Your task to perform on an android device: Search for vegetarian restaurants on Maps Image 0: 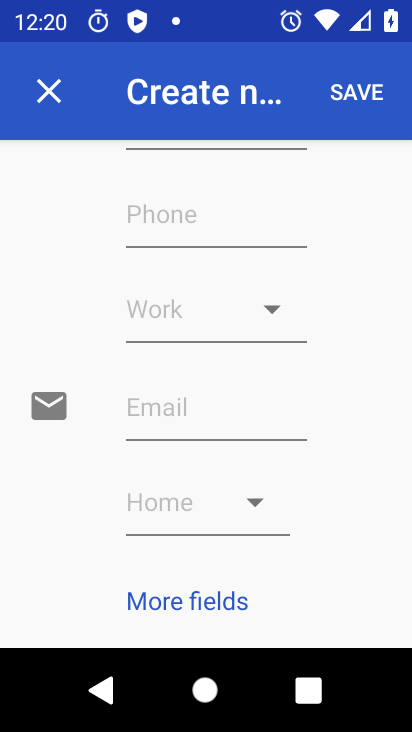
Step 0: press home button
Your task to perform on an android device: Search for vegetarian restaurants on Maps Image 1: 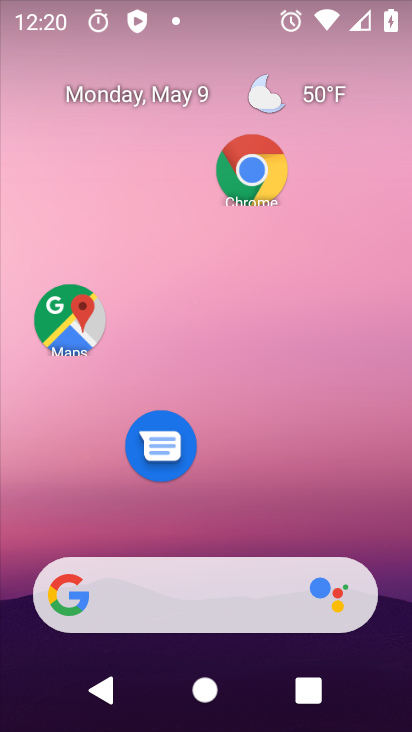
Step 1: drag from (262, 530) to (195, 3)
Your task to perform on an android device: Search for vegetarian restaurants on Maps Image 2: 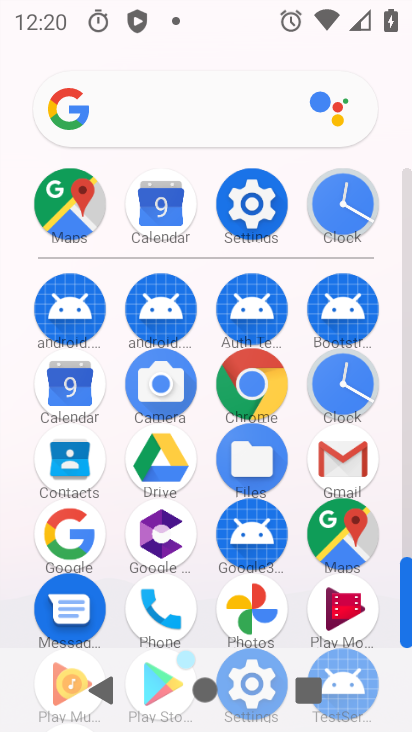
Step 2: click (77, 207)
Your task to perform on an android device: Search for vegetarian restaurants on Maps Image 3: 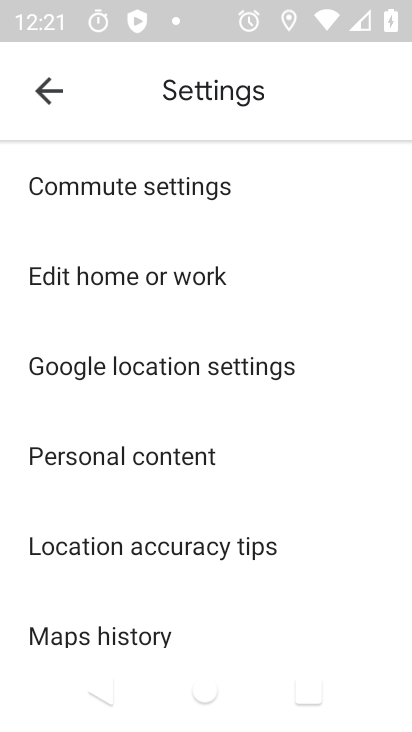
Step 3: click (47, 107)
Your task to perform on an android device: Search for vegetarian restaurants on Maps Image 4: 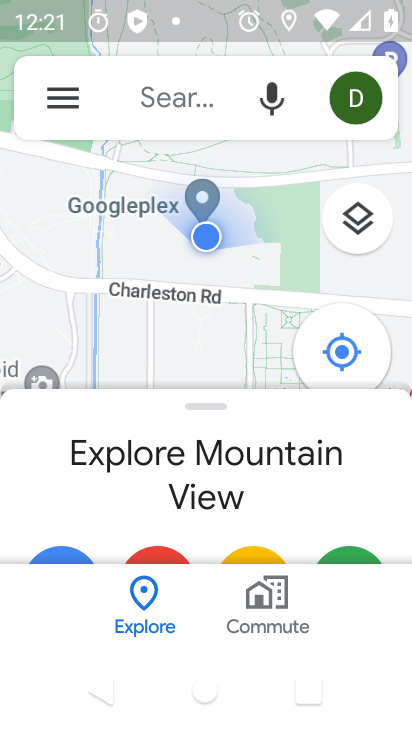
Step 4: click (175, 105)
Your task to perform on an android device: Search for vegetarian restaurants on Maps Image 5: 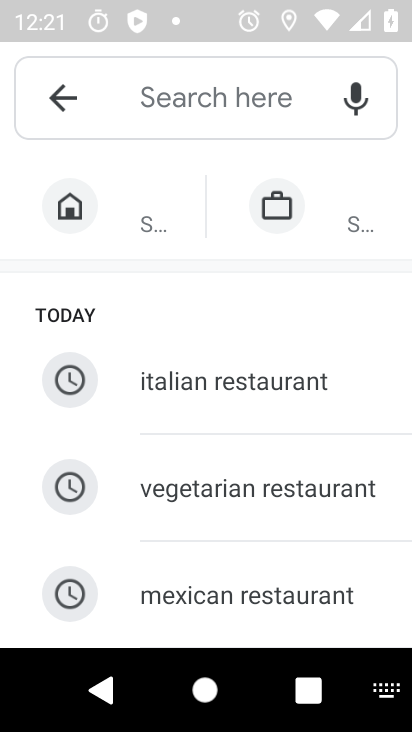
Step 5: type "vegetarian restaurant"
Your task to perform on an android device: Search for vegetarian restaurants on Maps Image 6: 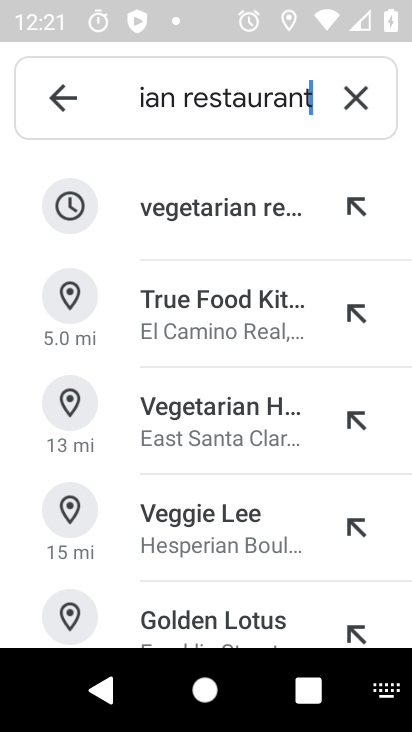
Step 6: click (219, 214)
Your task to perform on an android device: Search for vegetarian restaurants on Maps Image 7: 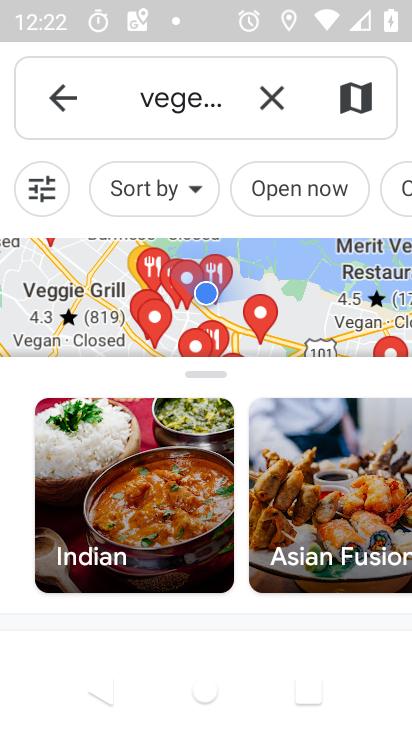
Step 7: task complete